Your task to perform on an android device: Open Google Chrome and open the bookmarks view Image 0: 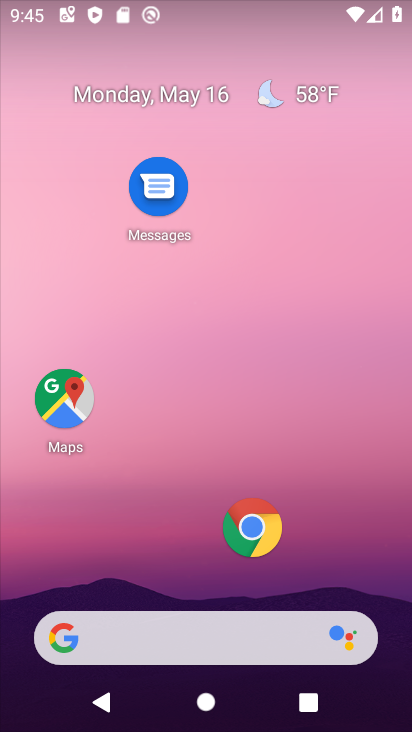
Step 0: click (257, 525)
Your task to perform on an android device: Open Google Chrome and open the bookmarks view Image 1: 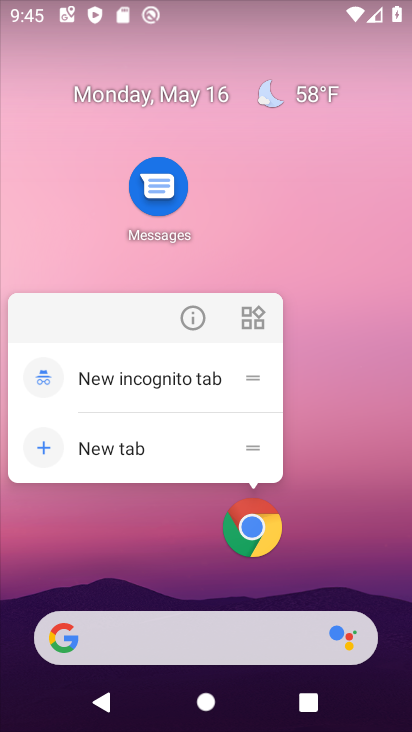
Step 1: click (257, 524)
Your task to perform on an android device: Open Google Chrome and open the bookmarks view Image 2: 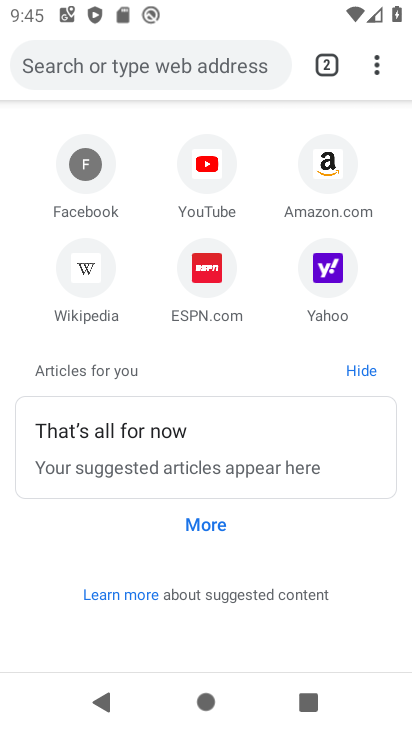
Step 2: click (367, 63)
Your task to perform on an android device: Open Google Chrome and open the bookmarks view Image 3: 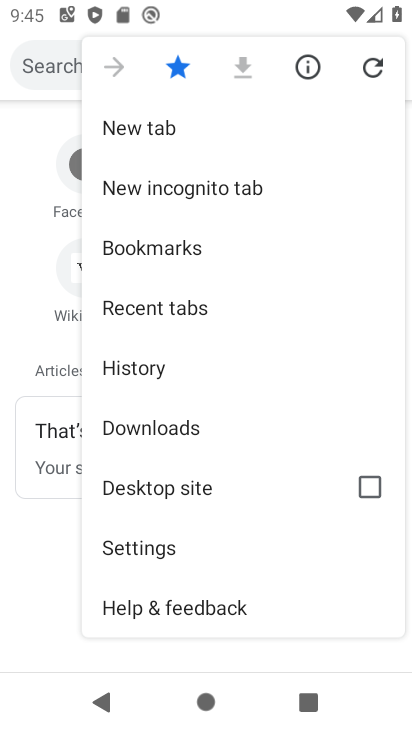
Step 3: click (258, 259)
Your task to perform on an android device: Open Google Chrome and open the bookmarks view Image 4: 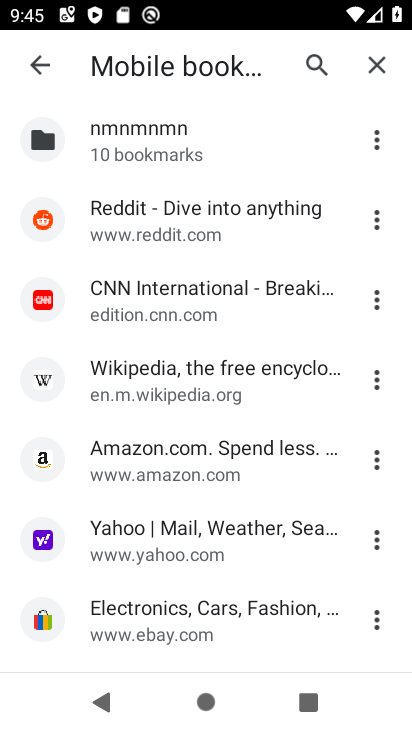
Step 4: click (172, 377)
Your task to perform on an android device: Open Google Chrome and open the bookmarks view Image 5: 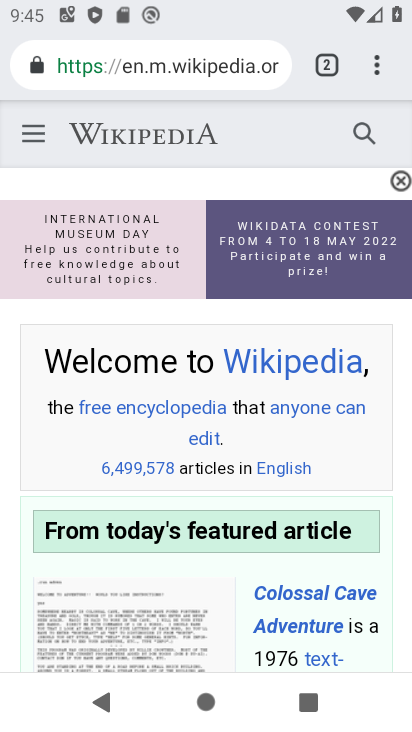
Step 5: task complete